Your task to perform on an android device: turn on the 24-hour format for clock Image 0: 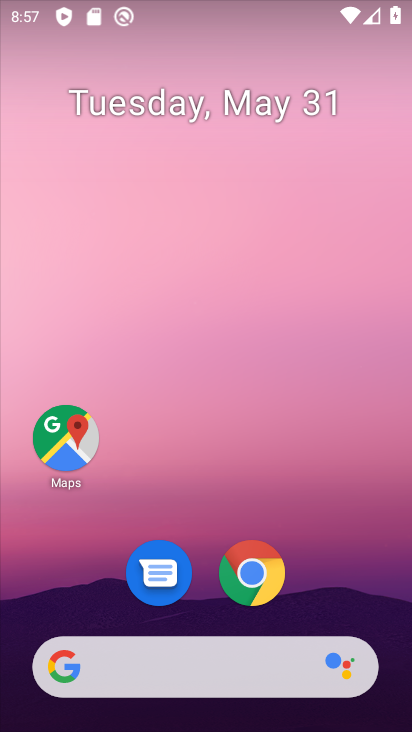
Step 0: drag from (351, 580) to (404, 56)
Your task to perform on an android device: turn on the 24-hour format for clock Image 1: 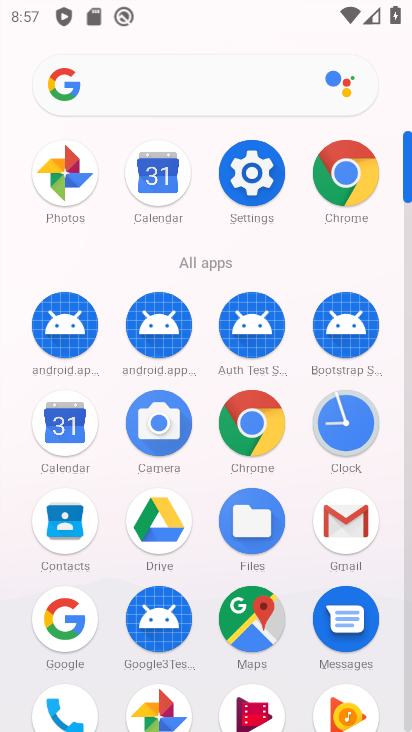
Step 1: click (354, 432)
Your task to perform on an android device: turn on the 24-hour format for clock Image 2: 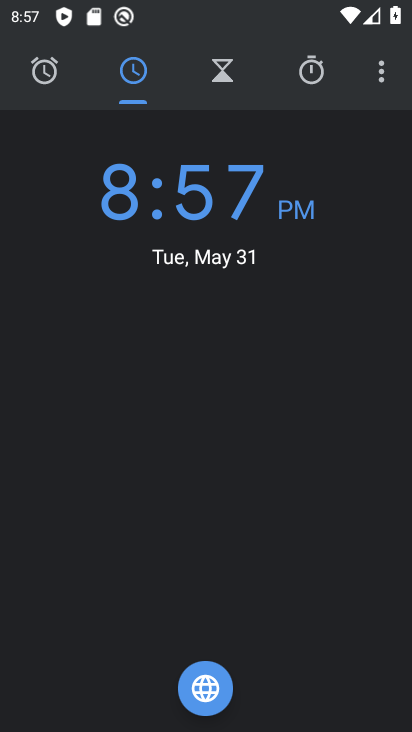
Step 2: click (396, 66)
Your task to perform on an android device: turn on the 24-hour format for clock Image 3: 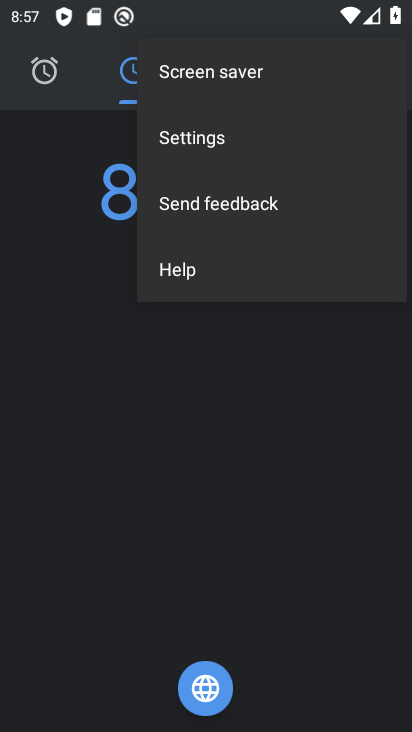
Step 3: click (196, 135)
Your task to perform on an android device: turn on the 24-hour format for clock Image 4: 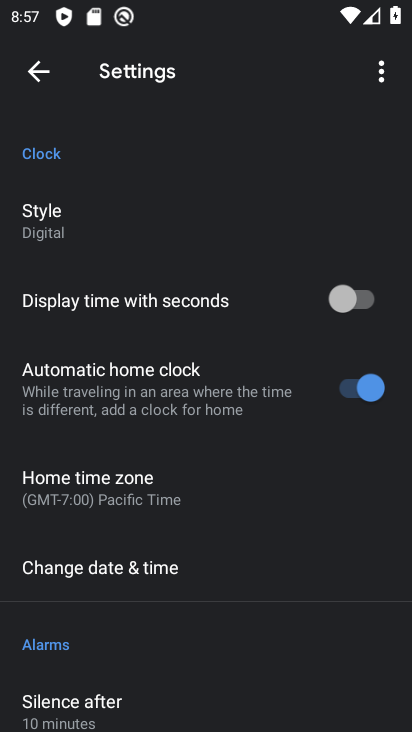
Step 4: click (146, 556)
Your task to perform on an android device: turn on the 24-hour format for clock Image 5: 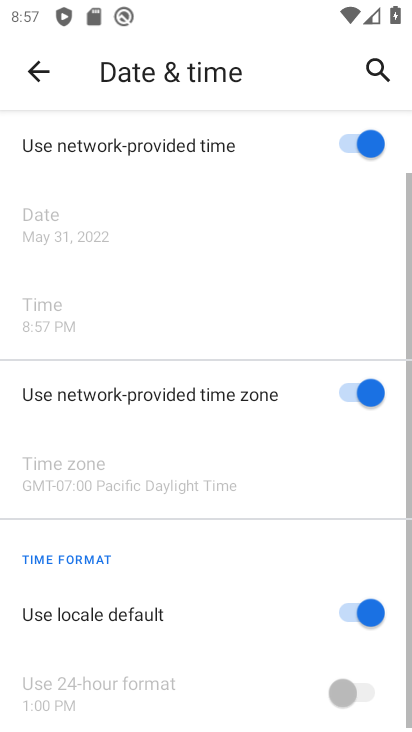
Step 5: drag from (214, 537) to (261, 148)
Your task to perform on an android device: turn on the 24-hour format for clock Image 6: 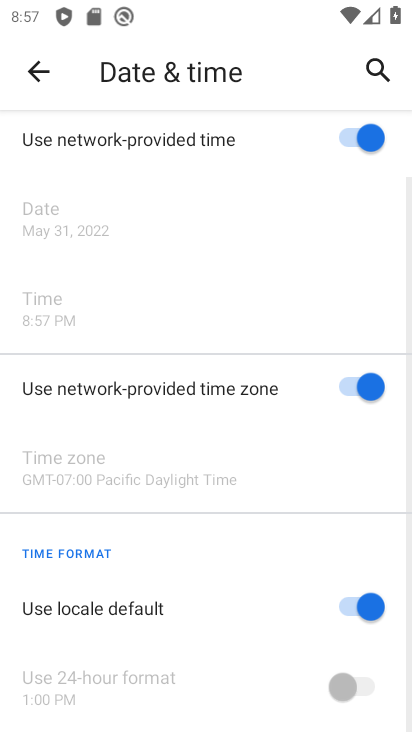
Step 6: click (346, 613)
Your task to perform on an android device: turn on the 24-hour format for clock Image 7: 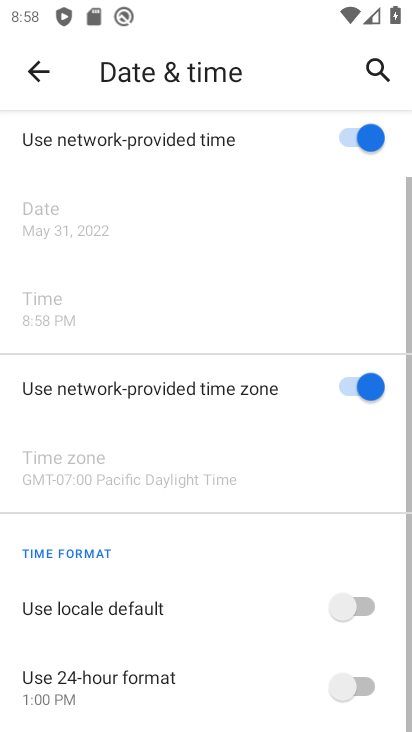
Step 7: click (354, 690)
Your task to perform on an android device: turn on the 24-hour format for clock Image 8: 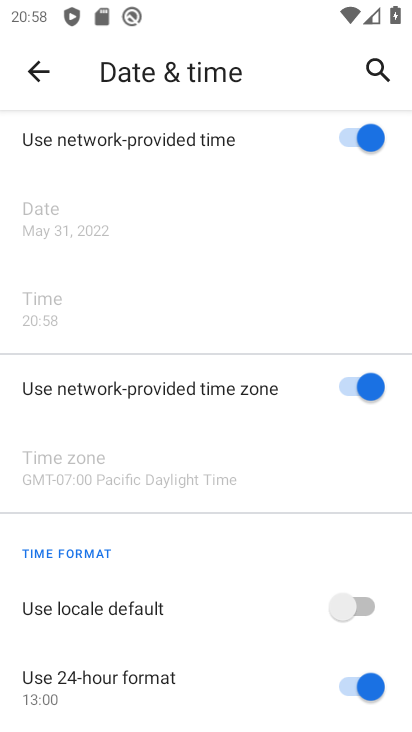
Step 8: task complete